Your task to perform on an android device: Go to Maps Image 0: 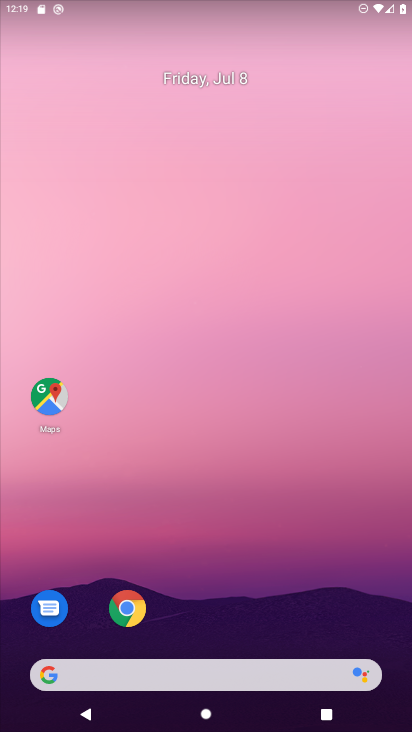
Step 0: drag from (255, 724) to (220, 7)
Your task to perform on an android device: Go to Maps Image 1: 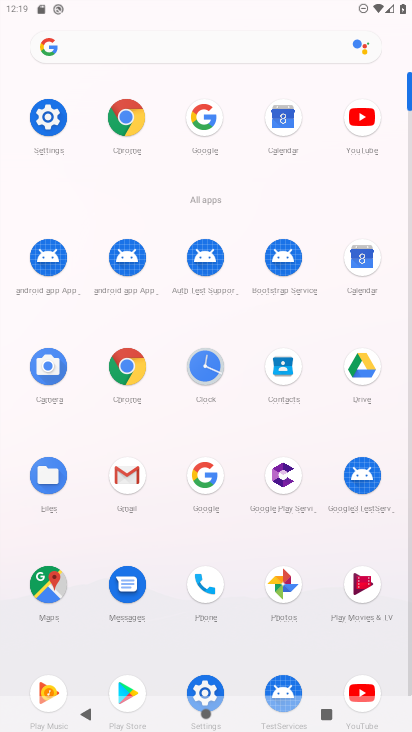
Step 1: click (47, 579)
Your task to perform on an android device: Go to Maps Image 2: 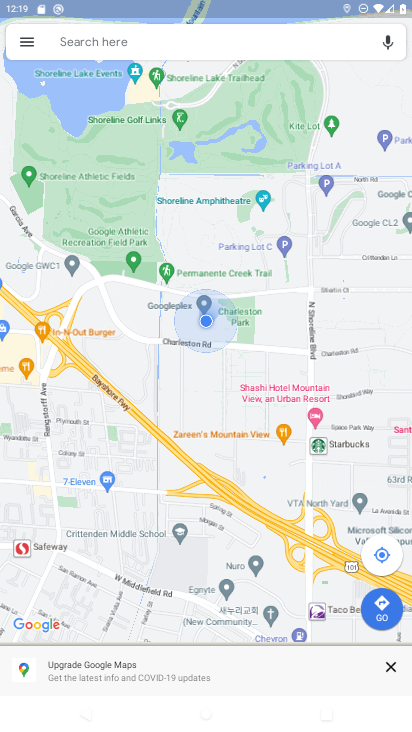
Step 2: task complete